Your task to perform on an android device: Do I have any events today? Image 0: 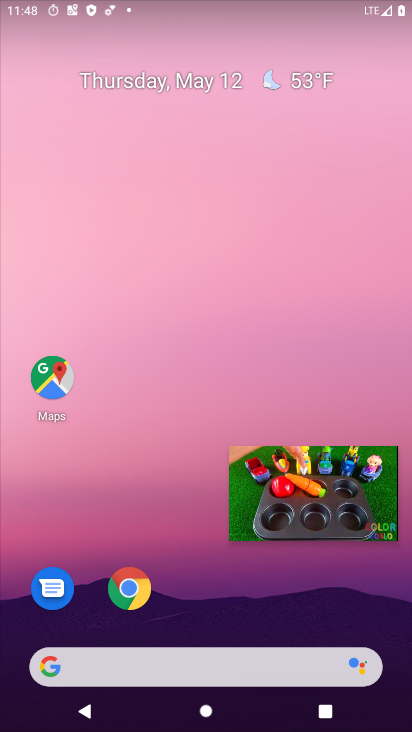
Step 0: drag from (287, 608) to (294, 59)
Your task to perform on an android device: Do I have any events today? Image 1: 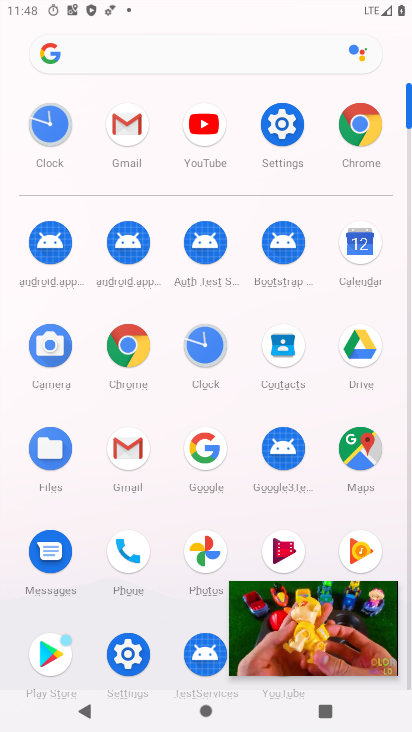
Step 1: drag from (323, 657) to (182, 729)
Your task to perform on an android device: Do I have any events today? Image 2: 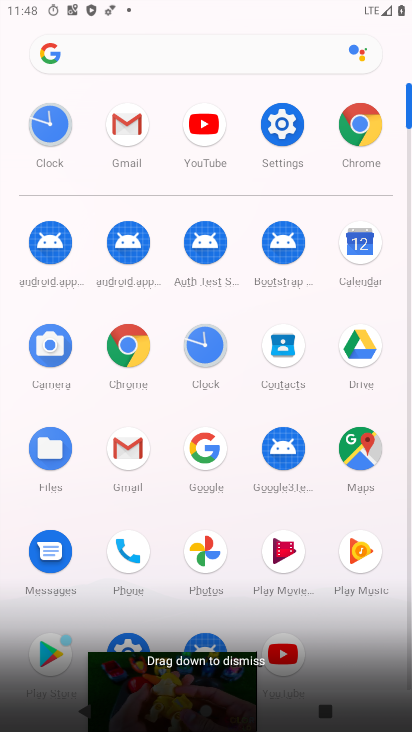
Step 2: drag from (147, 685) to (336, 23)
Your task to perform on an android device: Do I have any events today? Image 3: 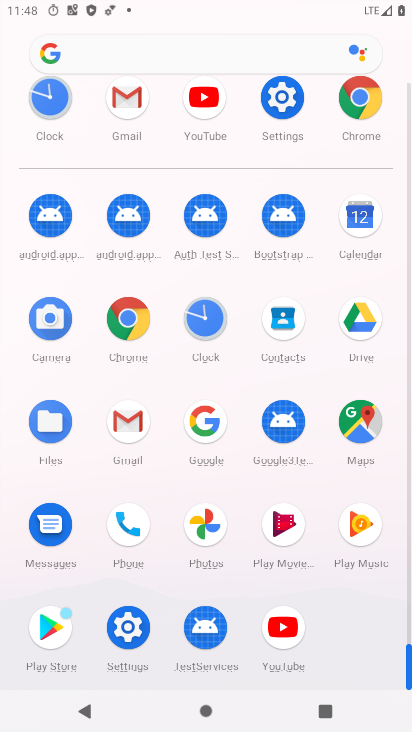
Step 3: click (350, 223)
Your task to perform on an android device: Do I have any events today? Image 4: 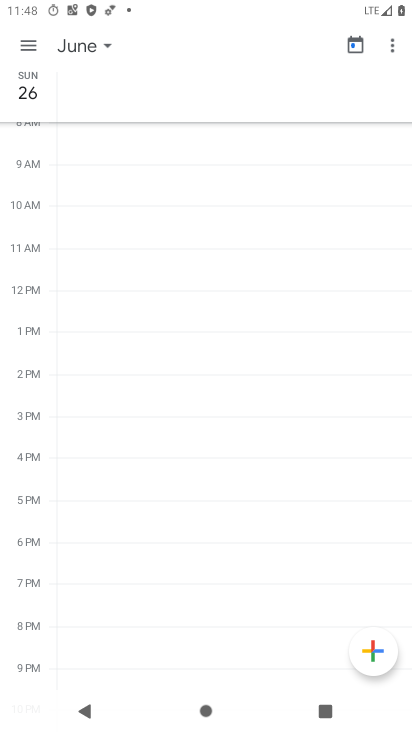
Step 4: click (352, 219)
Your task to perform on an android device: Do I have any events today? Image 5: 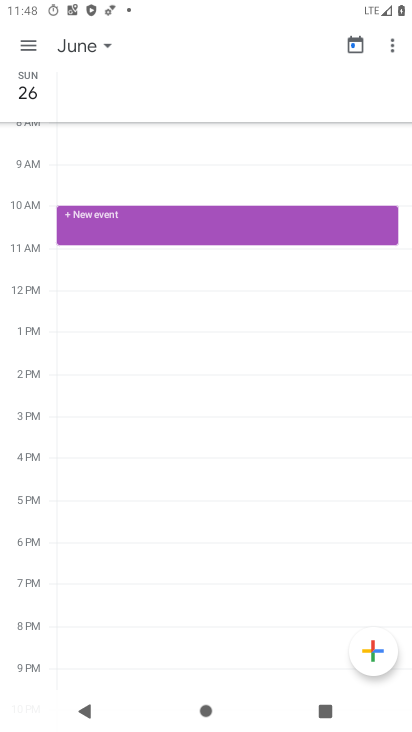
Step 5: click (85, 42)
Your task to perform on an android device: Do I have any events today? Image 6: 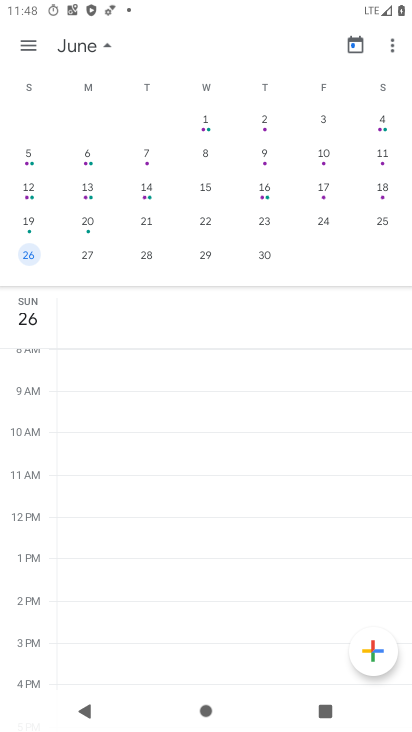
Step 6: drag from (21, 191) to (392, 165)
Your task to perform on an android device: Do I have any events today? Image 7: 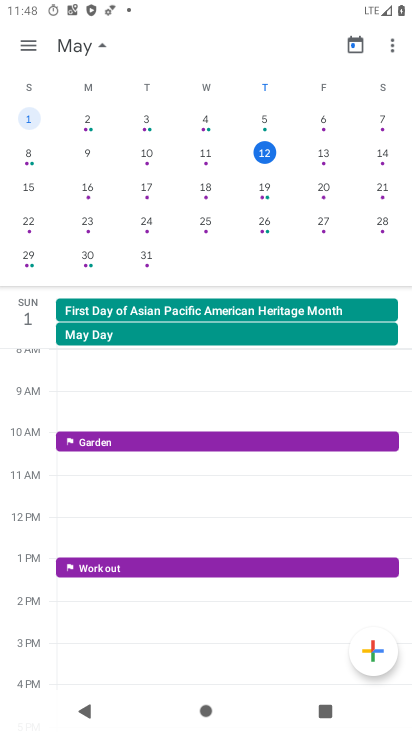
Step 7: click (251, 156)
Your task to perform on an android device: Do I have any events today? Image 8: 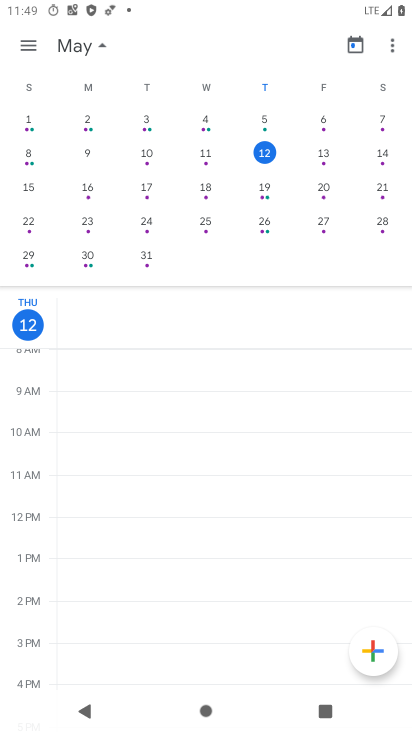
Step 8: task complete